Your task to perform on an android device: Open the calendar app, open the side menu, and click the "Day" option Image 0: 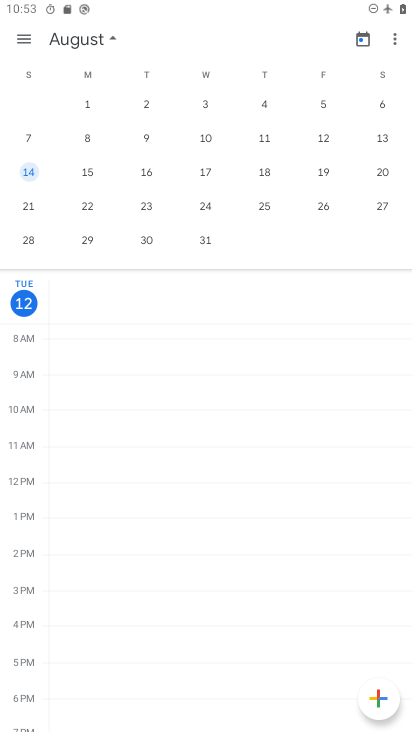
Step 0: click (8, 44)
Your task to perform on an android device: Open the calendar app, open the side menu, and click the "Day" option Image 1: 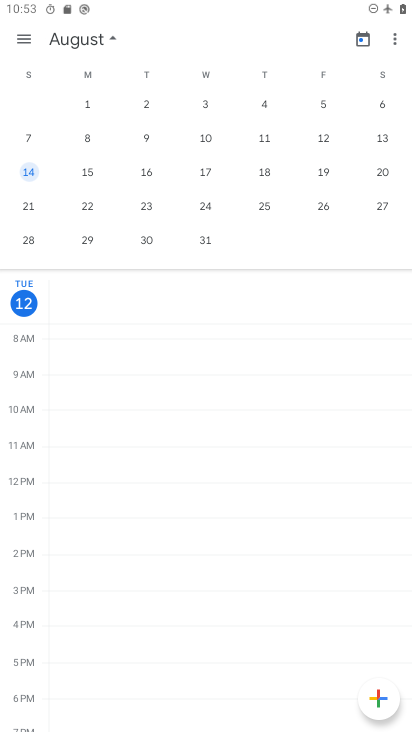
Step 1: click (20, 39)
Your task to perform on an android device: Open the calendar app, open the side menu, and click the "Day" option Image 2: 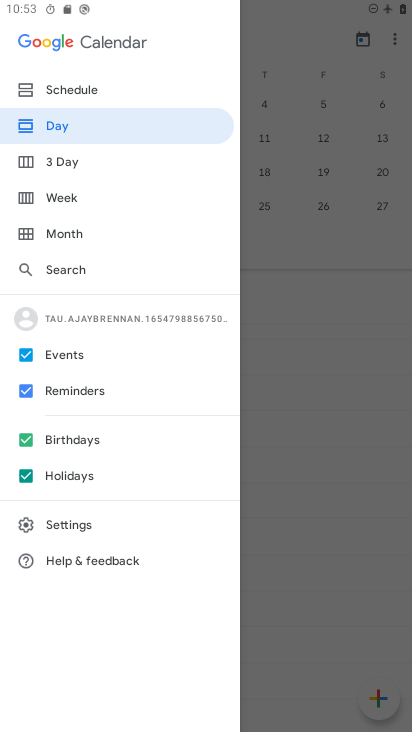
Step 2: task complete